Your task to perform on an android device: Open Youtube and go to the subscriptions tab Image 0: 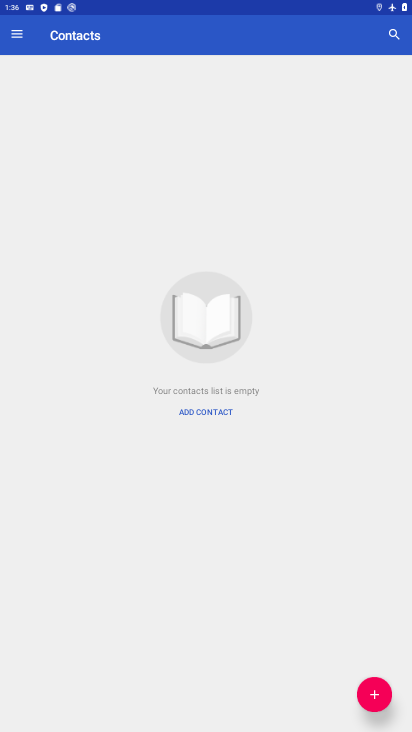
Step 0: press home button
Your task to perform on an android device: Open Youtube and go to the subscriptions tab Image 1: 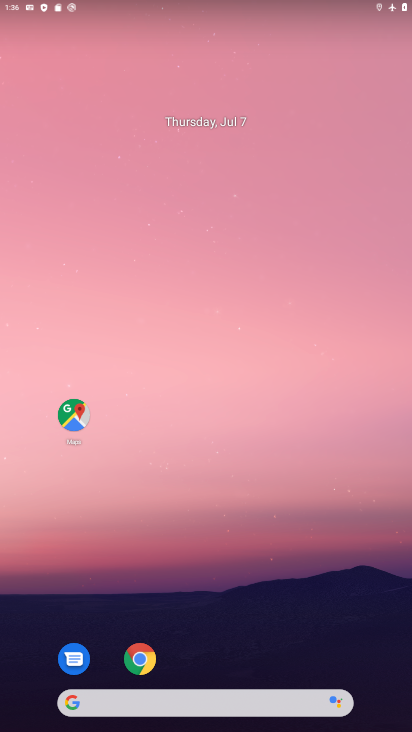
Step 1: drag from (263, 645) to (295, 321)
Your task to perform on an android device: Open Youtube and go to the subscriptions tab Image 2: 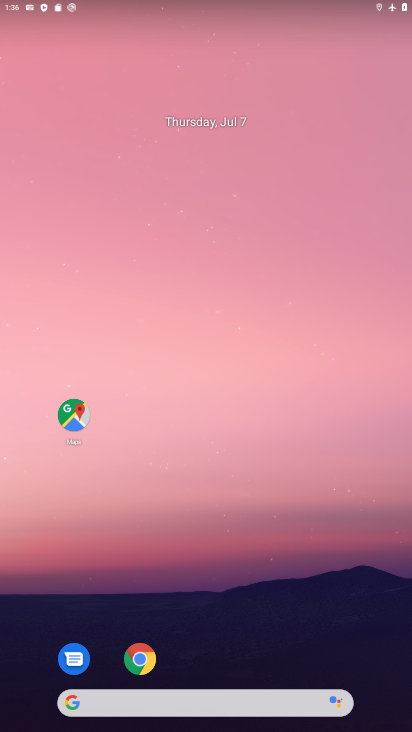
Step 2: drag from (240, 556) to (261, 227)
Your task to perform on an android device: Open Youtube and go to the subscriptions tab Image 3: 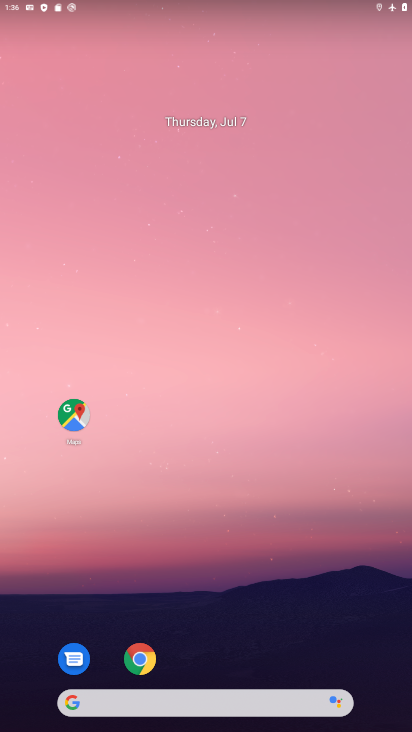
Step 3: drag from (238, 576) to (274, 67)
Your task to perform on an android device: Open Youtube and go to the subscriptions tab Image 4: 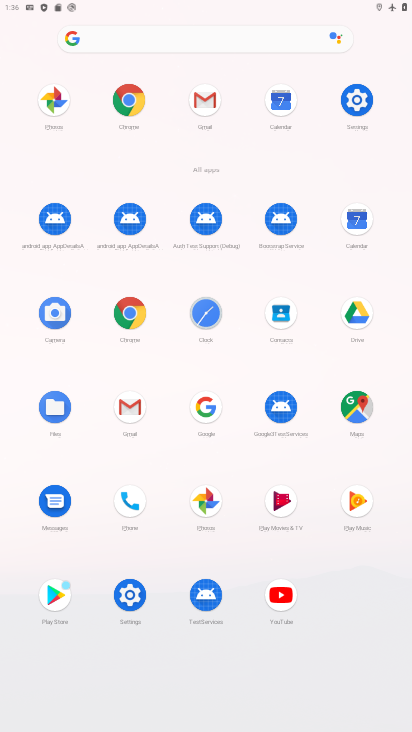
Step 4: click (276, 594)
Your task to perform on an android device: Open Youtube and go to the subscriptions tab Image 5: 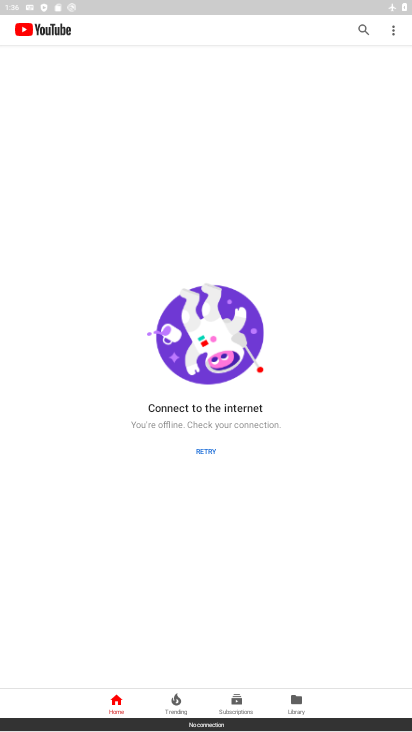
Step 5: click (239, 704)
Your task to perform on an android device: Open Youtube and go to the subscriptions tab Image 6: 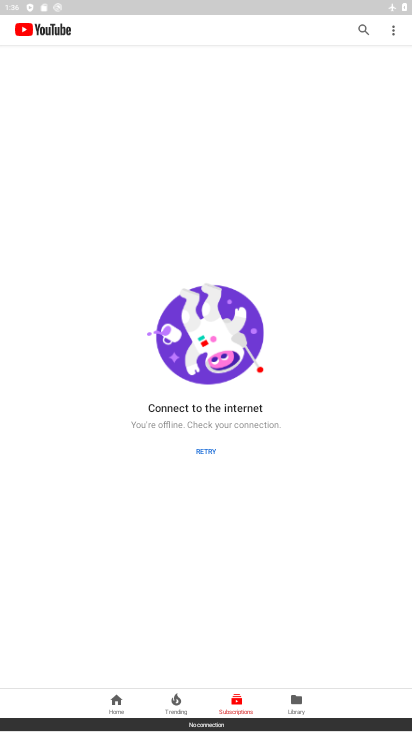
Step 6: task complete